Your task to perform on an android device: Open the calendar and show me this week's events Image 0: 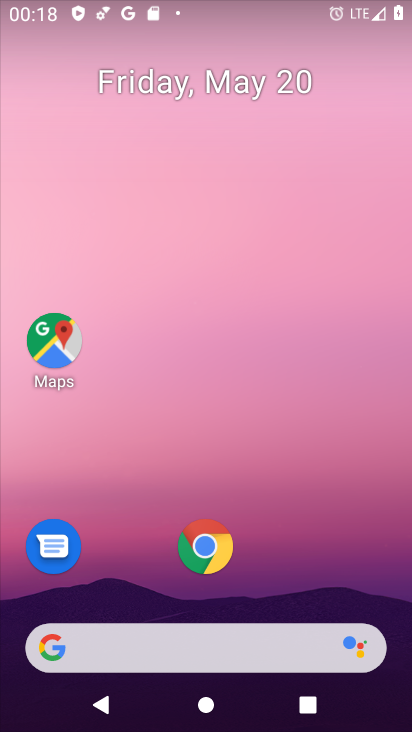
Step 0: drag from (331, 575) to (286, 189)
Your task to perform on an android device: Open the calendar and show me this week's events Image 1: 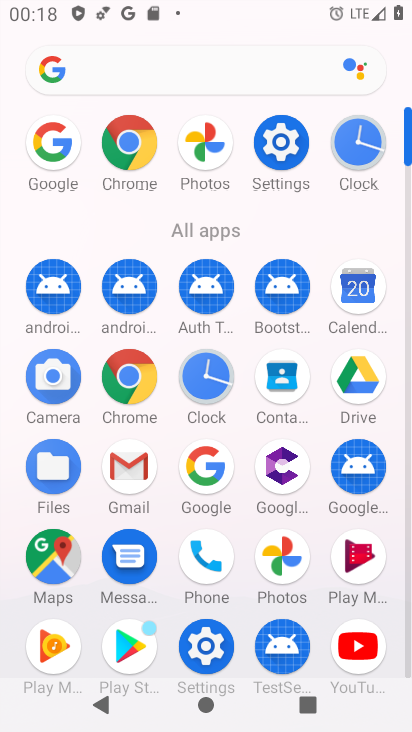
Step 1: click (346, 299)
Your task to perform on an android device: Open the calendar and show me this week's events Image 2: 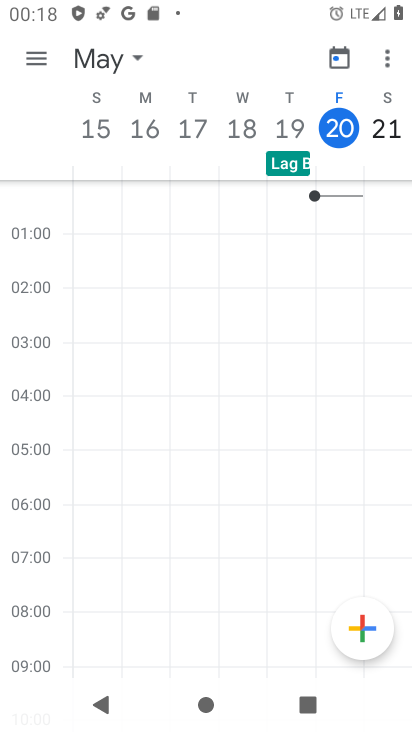
Step 2: task complete